Your task to perform on an android device: Open privacy settings Image 0: 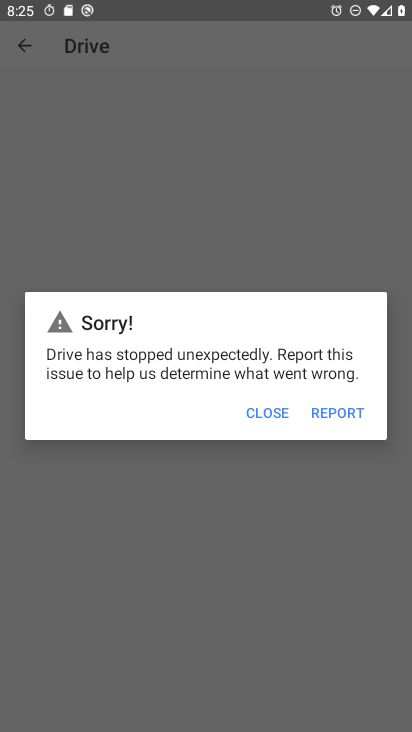
Step 0: press home button
Your task to perform on an android device: Open privacy settings Image 1: 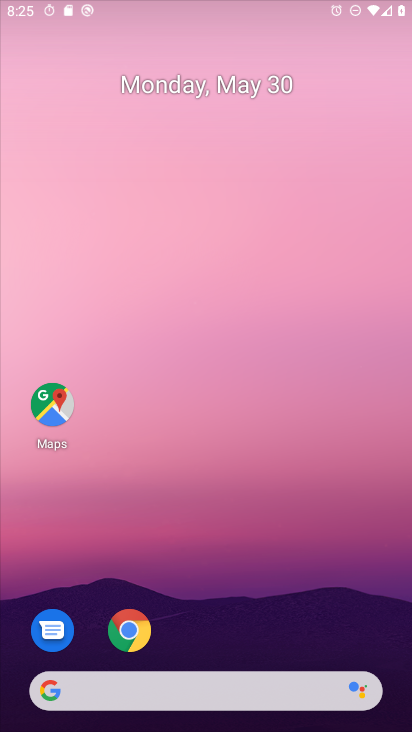
Step 1: drag from (401, 628) to (292, 67)
Your task to perform on an android device: Open privacy settings Image 2: 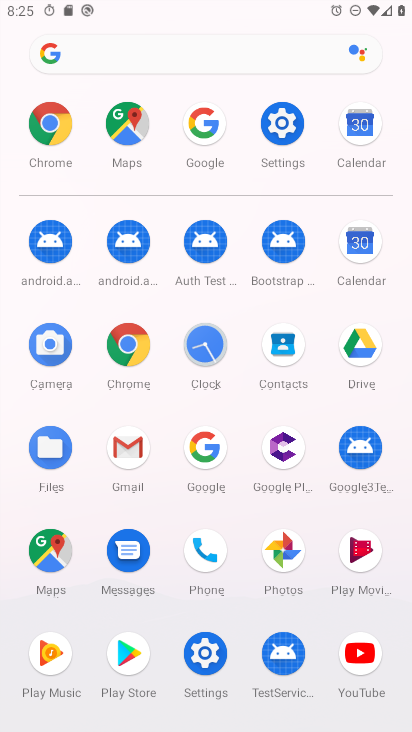
Step 2: click (199, 649)
Your task to perform on an android device: Open privacy settings Image 3: 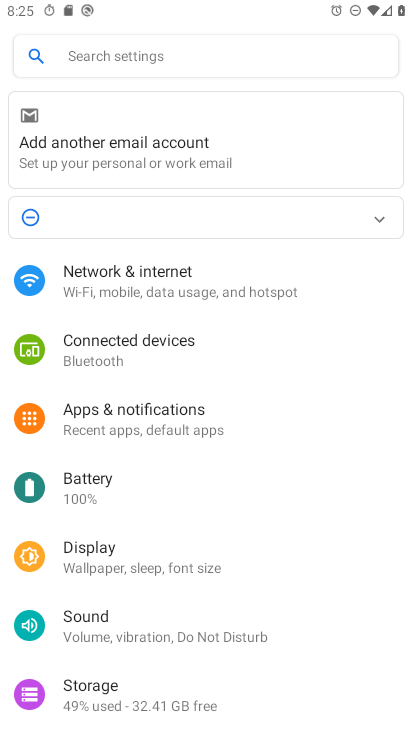
Step 3: drag from (170, 633) to (149, 364)
Your task to perform on an android device: Open privacy settings Image 4: 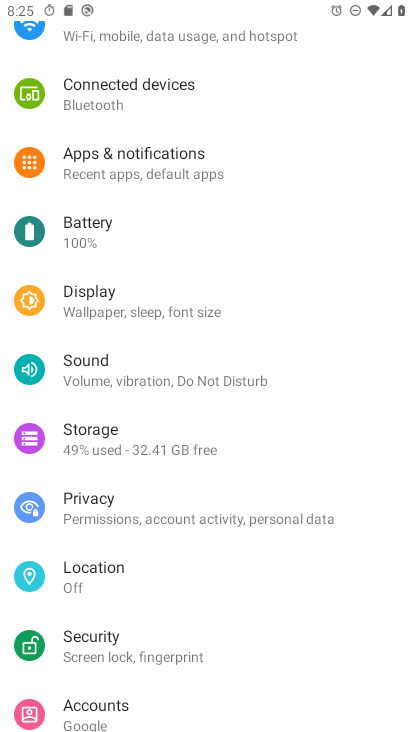
Step 4: click (119, 530)
Your task to perform on an android device: Open privacy settings Image 5: 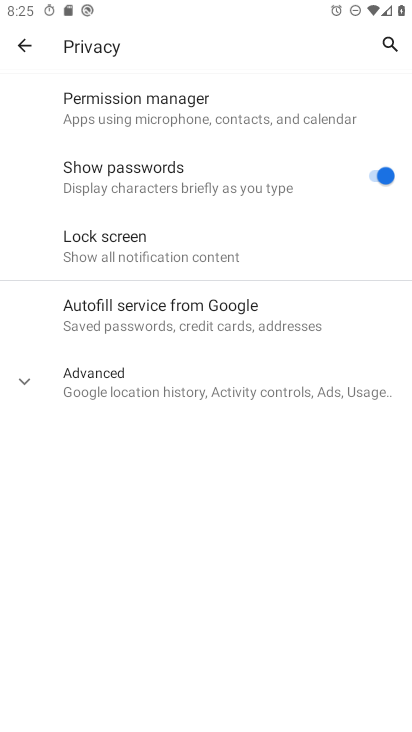
Step 5: task complete